Your task to perform on an android device: Set the phone to "Do not disturb". Image 0: 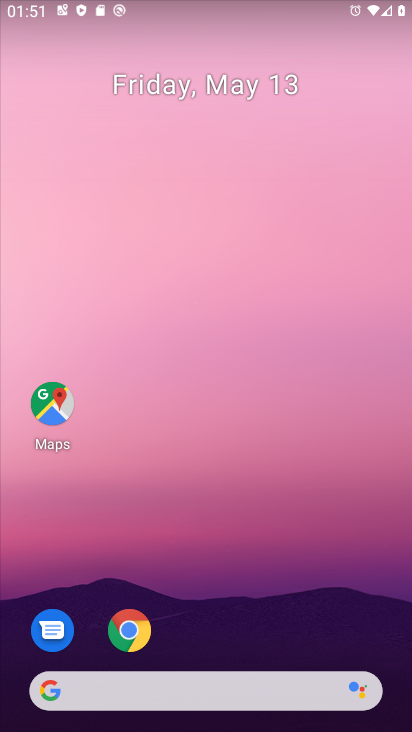
Step 0: drag from (273, 709) to (274, 381)
Your task to perform on an android device: Set the phone to "Do not disturb". Image 1: 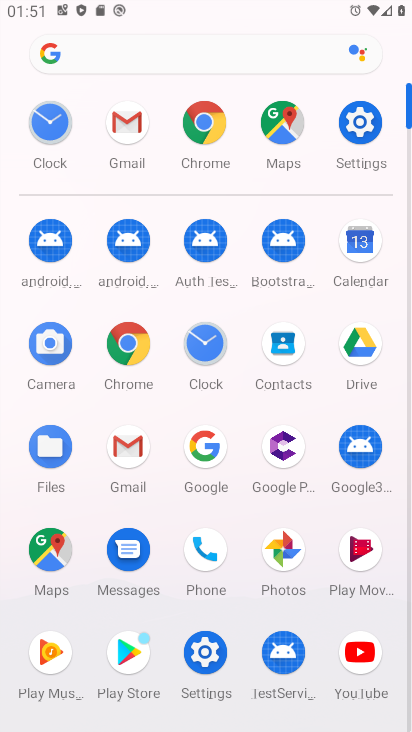
Step 1: click (352, 150)
Your task to perform on an android device: Set the phone to "Do not disturb". Image 2: 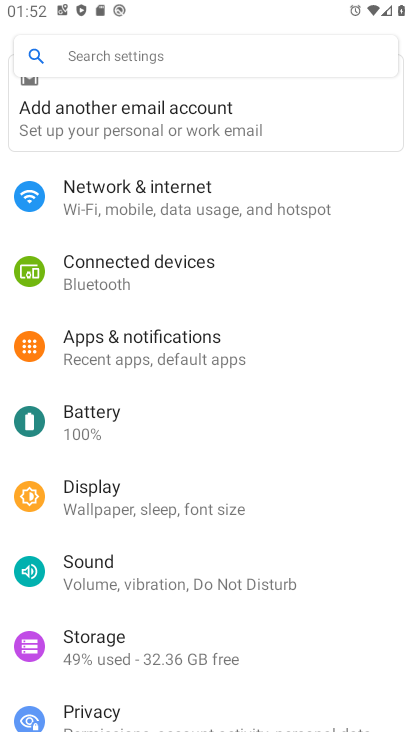
Step 2: click (161, 50)
Your task to perform on an android device: Set the phone to "Do not disturb". Image 3: 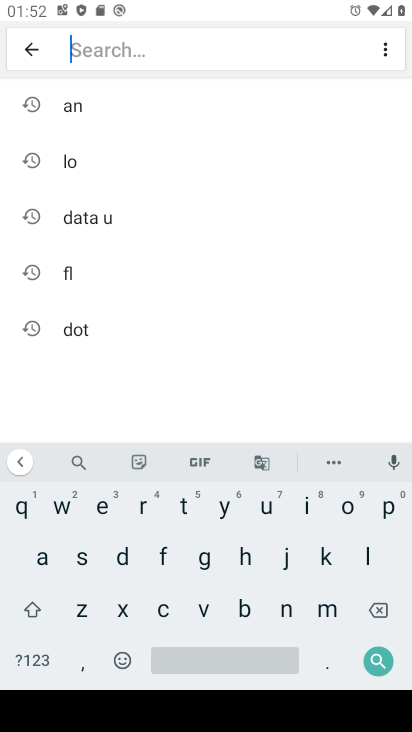
Step 3: click (127, 563)
Your task to perform on an android device: Set the phone to "Do not disturb". Image 4: 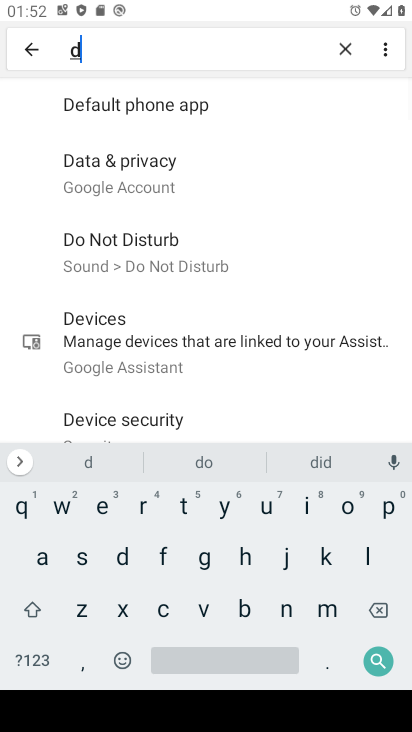
Step 4: click (285, 612)
Your task to perform on an android device: Set the phone to "Do not disturb". Image 5: 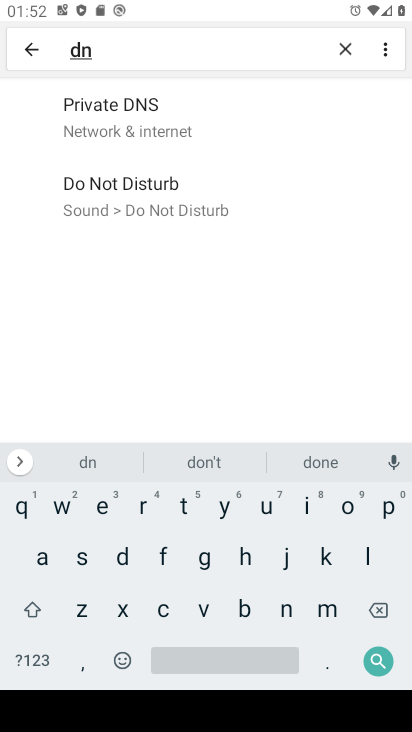
Step 5: click (156, 202)
Your task to perform on an android device: Set the phone to "Do not disturb". Image 6: 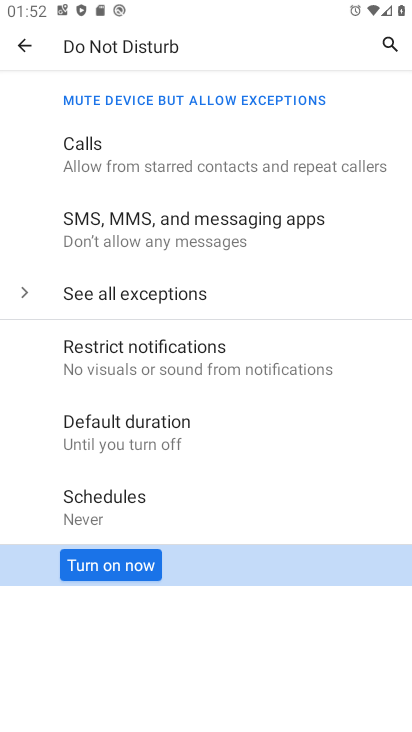
Step 6: click (128, 555)
Your task to perform on an android device: Set the phone to "Do not disturb". Image 7: 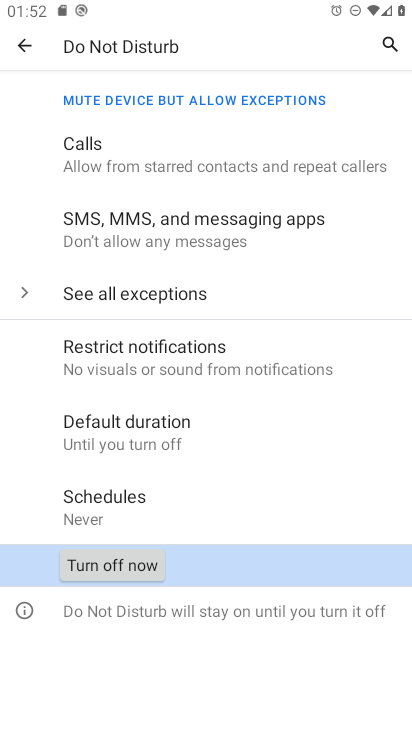
Step 7: task complete